Your task to perform on an android device: Show me the alarms in the clock app Image 0: 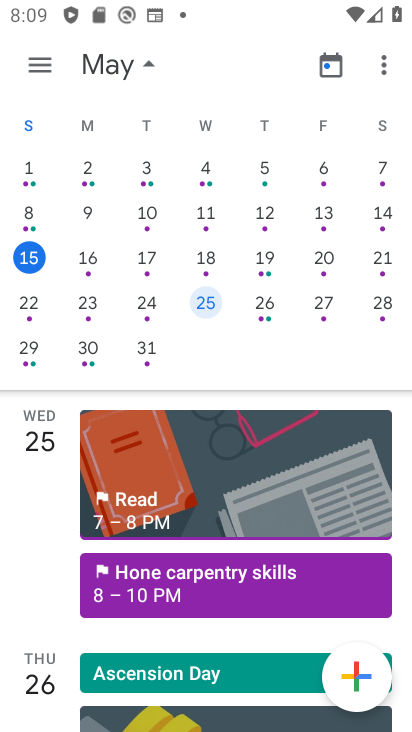
Step 0: press home button
Your task to perform on an android device: Show me the alarms in the clock app Image 1: 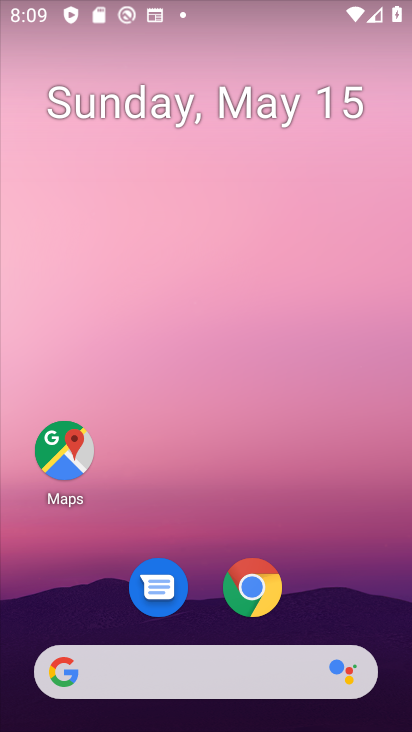
Step 1: click (75, 628)
Your task to perform on an android device: Show me the alarms in the clock app Image 2: 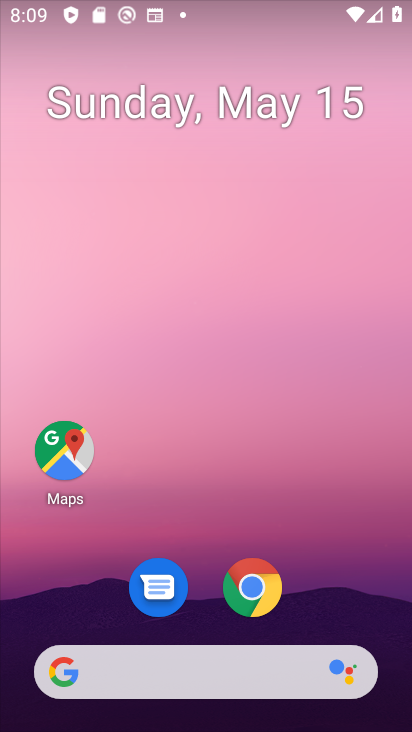
Step 2: drag from (196, 629) to (224, 258)
Your task to perform on an android device: Show me the alarms in the clock app Image 3: 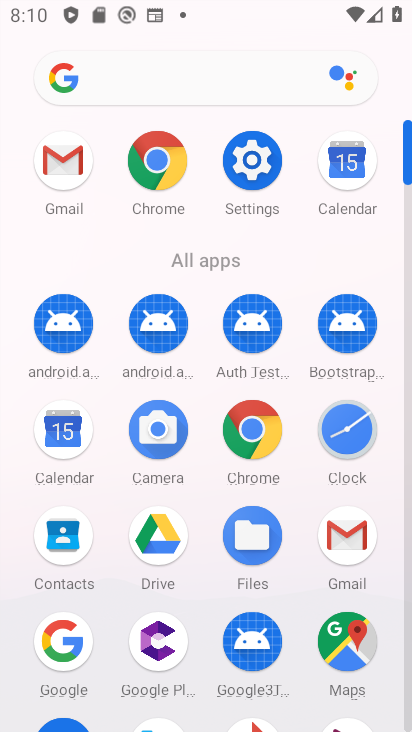
Step 3: click (351, 425)
Your task to perform on an android device: Show me the alarms in the clock app Image 4: 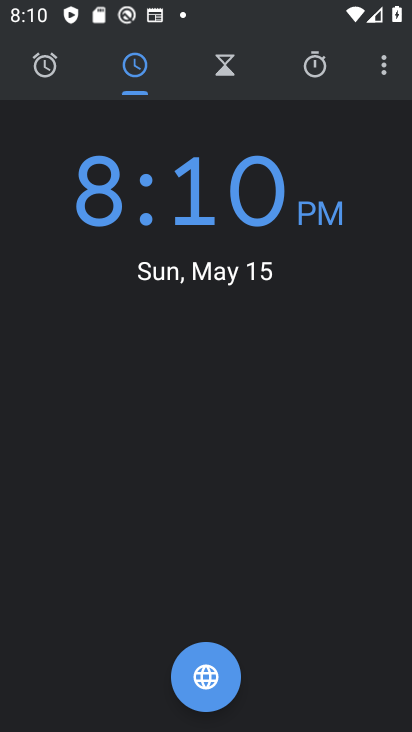
Step 4: click (56, 66)
Your task to perform on an android device: Show me the alarms in the clock app Image 5: 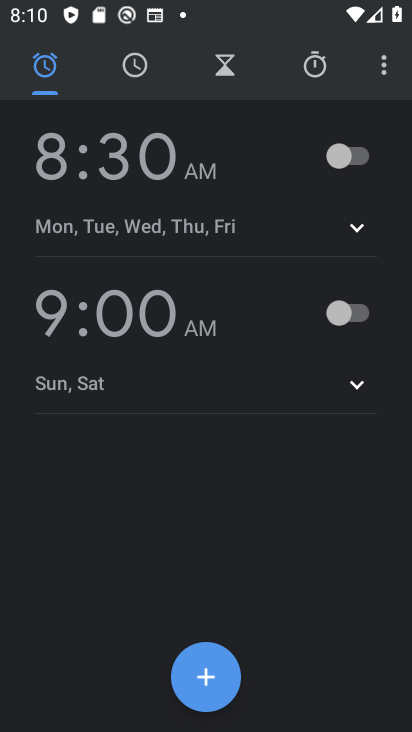
Step 5: task complete